Your task to perform on an android device: Search for Mexican restaurants on Maps Image 0: 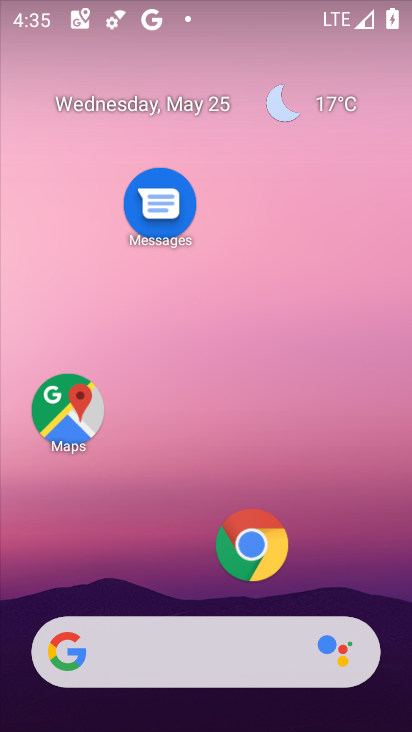
Step 0: click (72, 403)
Your task to perform on an android device: Search for Mexican restaurants on Maps Image 1: 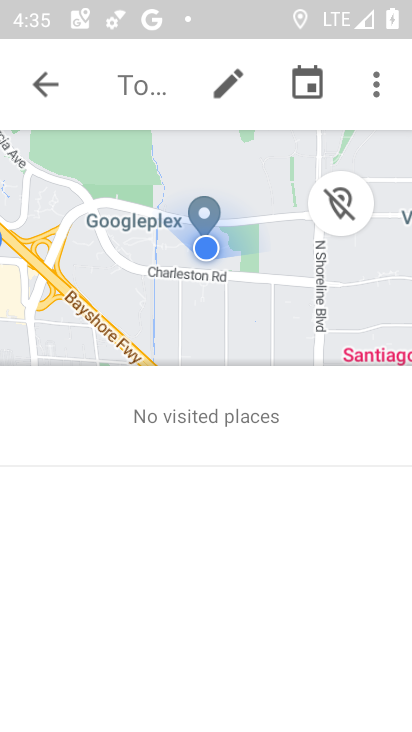
Step 1: click (40, 97)
Your task to perform on an android device: Search for Mexican restaurants on Maps Image 2: 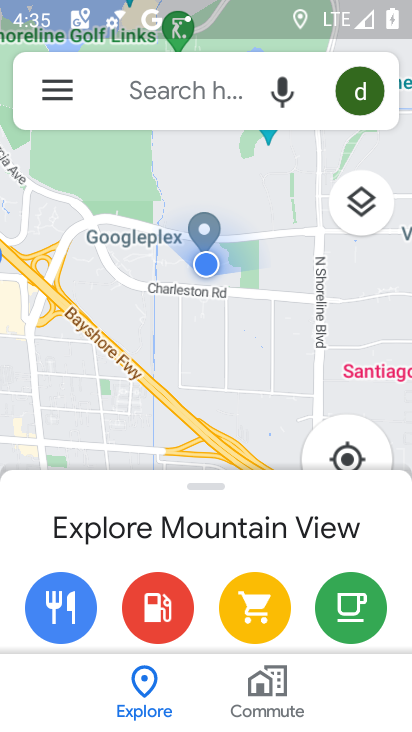
Step 2: click (157, 95)
Your task to perform on an android device: Search for Mexican restaurants on Maps Image 3: 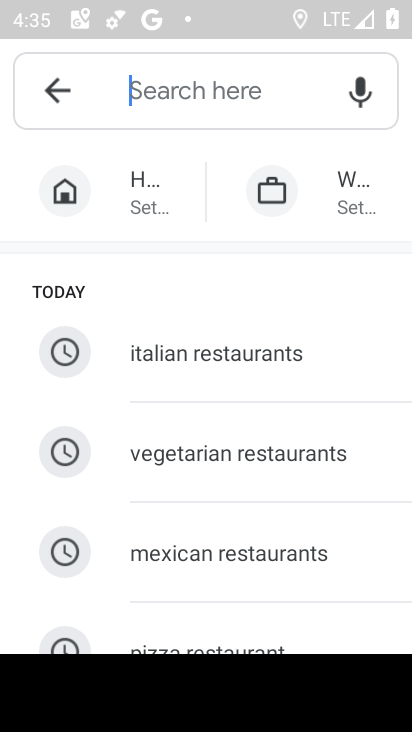
Step 3: click (223, 565)
Your task to perform on an android device: Search for Mexican restaurants on Maps Image 4: 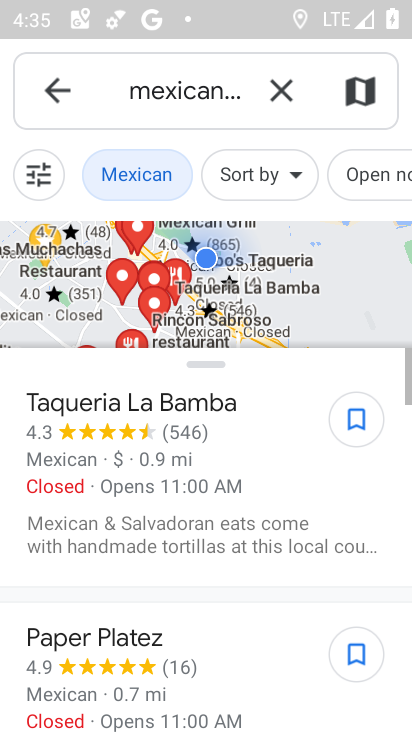
Step 4: task complete